Your task to perform on an android device: Open calendar and show me the second week of next month Image 0: 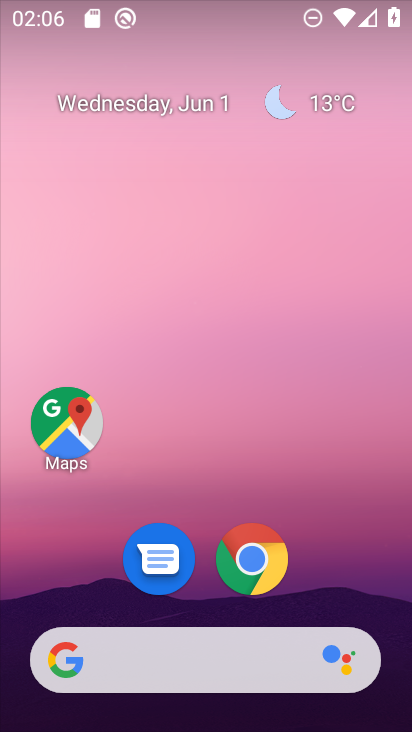
Step 0: drag from (403, 687) to (363, 234)
Your task to perform on an android device: Open calendar and show me the second week of next month Image 1: 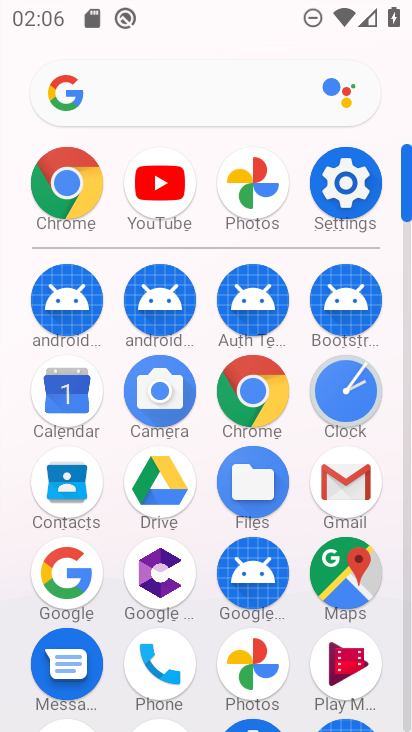
Step 1: click (347, 200)
Your task to perform on an android device: Open calendar and show me the second week of next month Image 2: 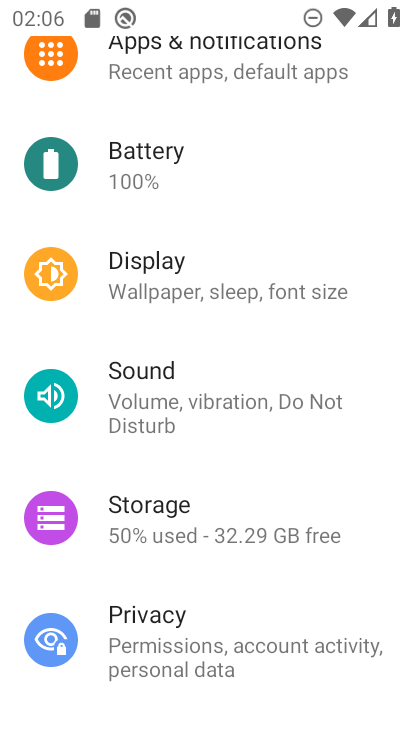
Step 2: press home button
Your task to perform on an android device: Open calendar and show me the second week of next month Image 3: 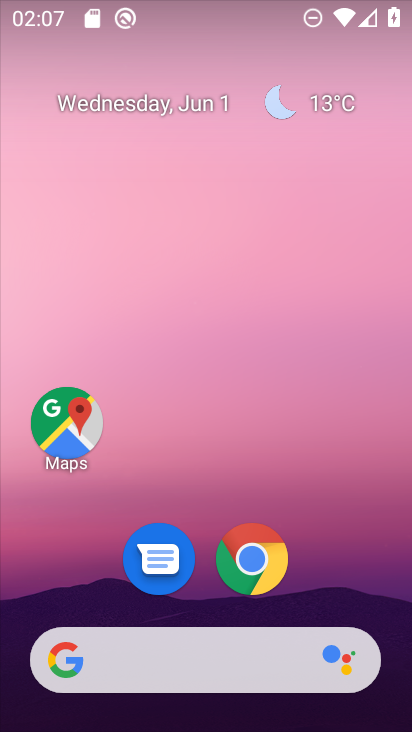
Step 3: drag from (384, 641) to (315, 137)
Your task to perform on an android device: Open calendar and show me the second week of next month Image 4: 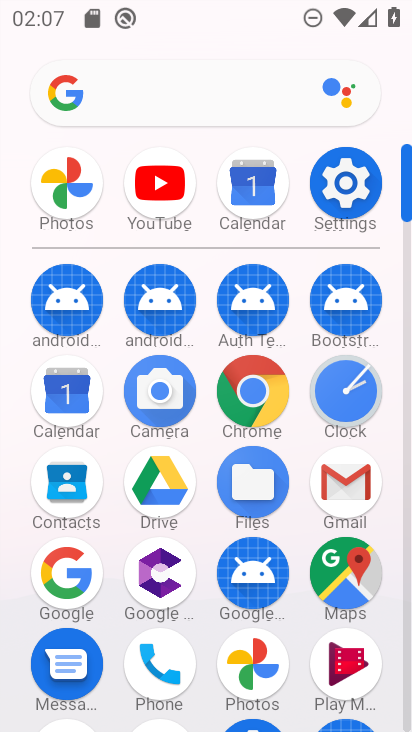
Step 4: click (69, 406)
Your task to perform on an android device: Open calendar and show me the second week of next month Image 5: 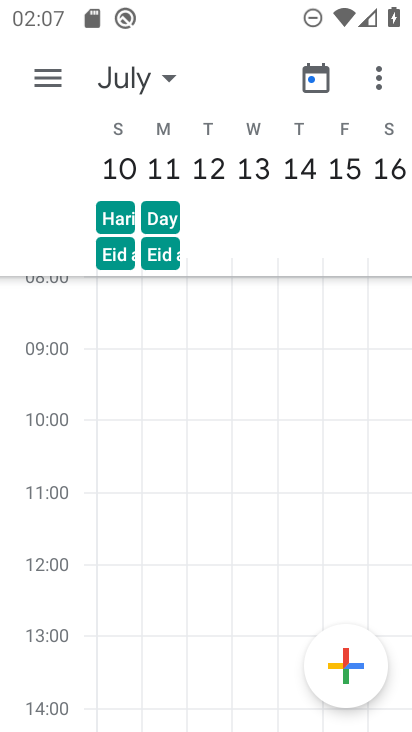
Step 5: click (168, 79)
Your task to perform on an android device: Open calendar and show me the second week of next month Image 6: 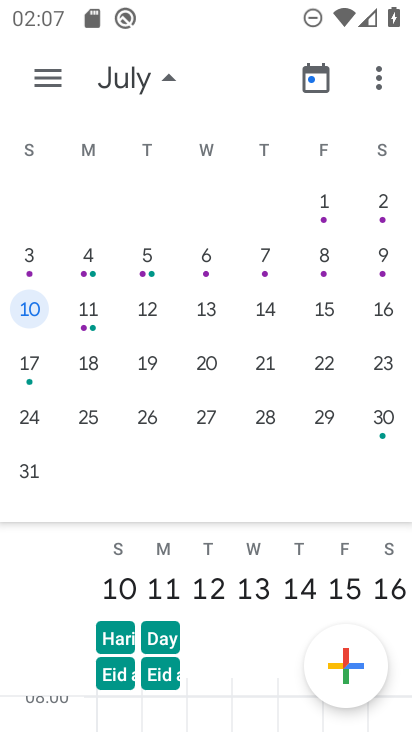
Step 6: click (265, 253)
Your task to perform on an android device: Open calendar and show me the second week of next month Image 7: 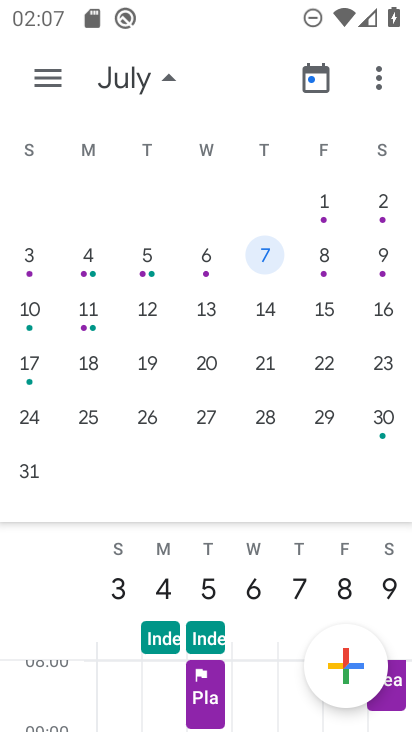
Step 7: click (36, 84)
Your task to perform on an android device: Open calendar and show me the second week of next month Image 8: 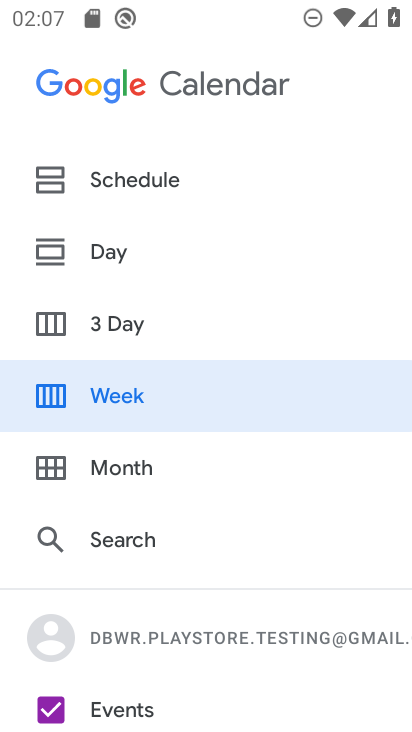
Step 8: click (110, 390)
Your task to perform on an android device: Open calendar and show me the second week of next month Image 9: 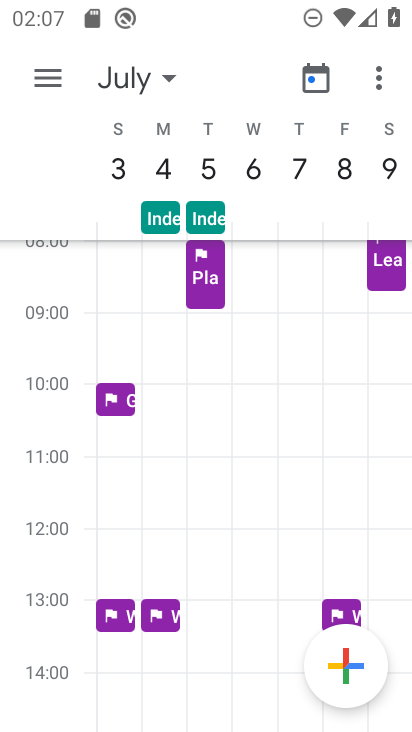
Step 9: task complete